Your task to perform on an android device: turn off notifications settings in the gmail app Image 0: 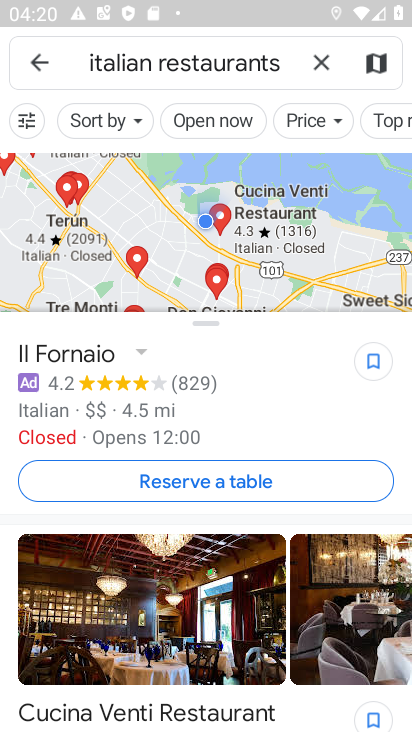
Step 0: press home button
Your task to perform on an android device: turn off notifications settings in the gmail app Image 1: 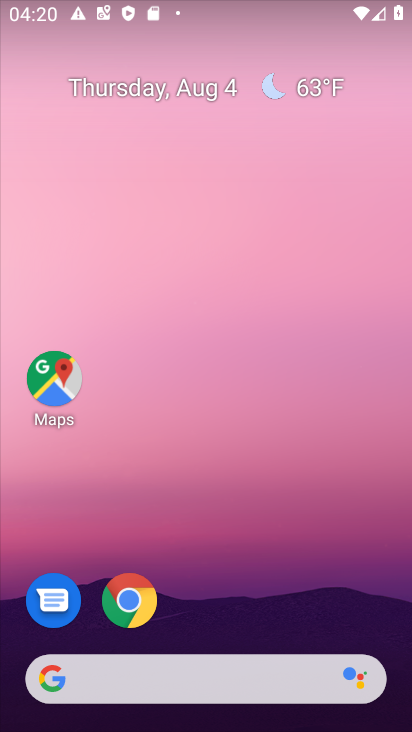
Step 1: drag from (322, 486) to (275, 124)
Your task to perform on an android device: turn off notifications settings in the gmail app Image 2: 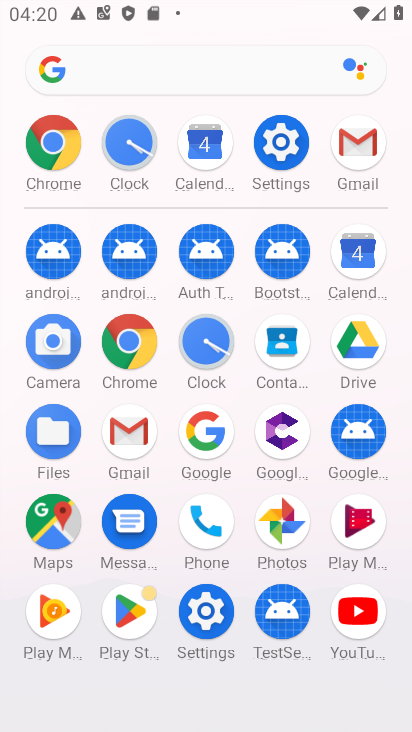
Step 2: click (128, 426)
Your task to perform on an android device: turn off notifications settings in the gmail app Image 3: 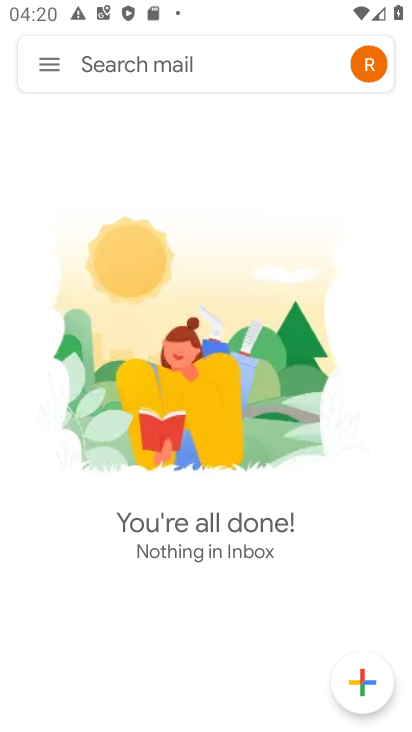
Step 3: click (50, 58)
Your task to perform on an android device: turn off notifications settings in the gmail app Image 4: 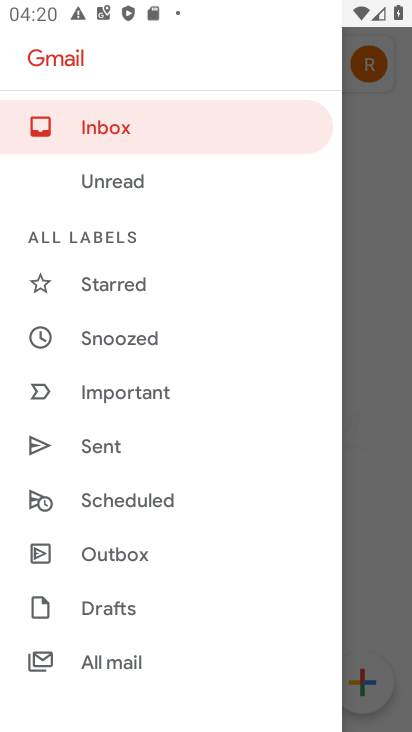
Step 4: drag from (163, 603) to (237, 221)
Your task to perform on an android device: turn off notifications settings in the gmail app Image 5: 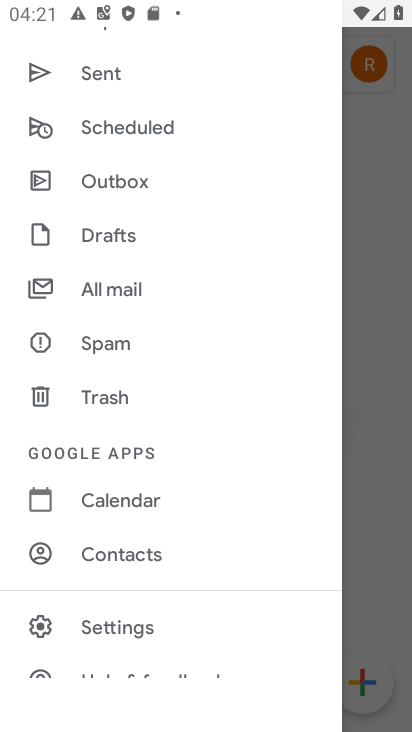
Step 5: click (109, 619)
Your task to perform on an android device: turn off notifications settings in the gmail app Image 6: 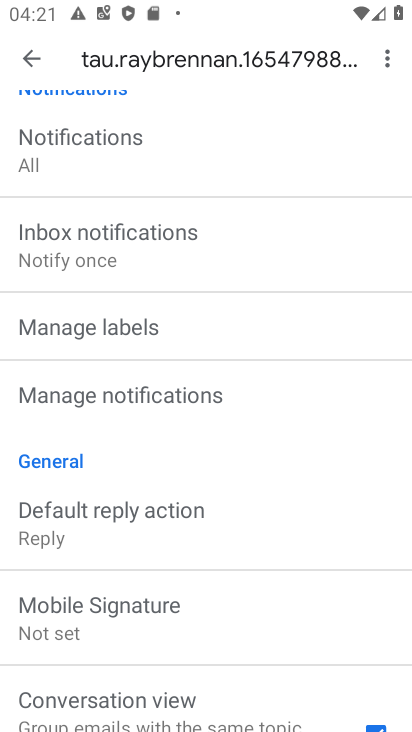
Step 6: click (152, 387)
Your task to perform on an android device: turn off notifications settings in the gmail app Image 7: 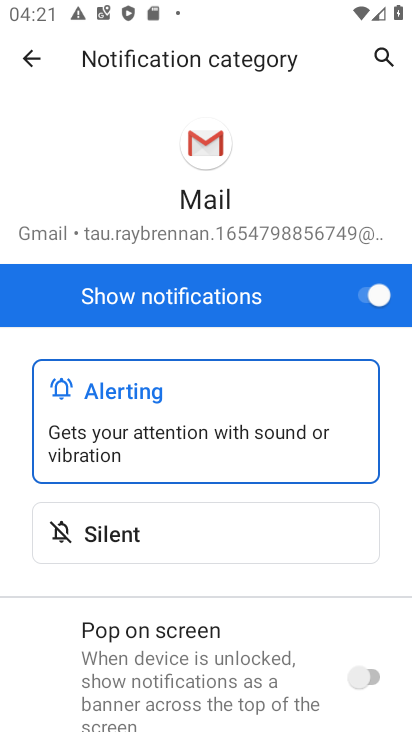
Step 7: click (350, 290)
Your task to perform on an android device: turn off notifications settings in the gmail app Image 8: 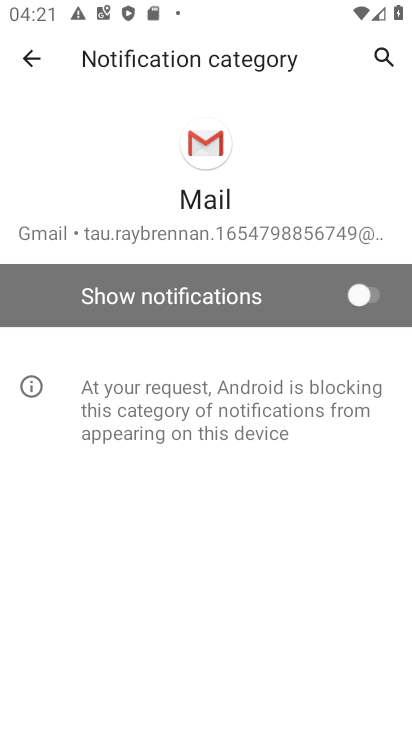
Step 8: task complete